Your task to perform on an android device: set the stopwatch Image 0: 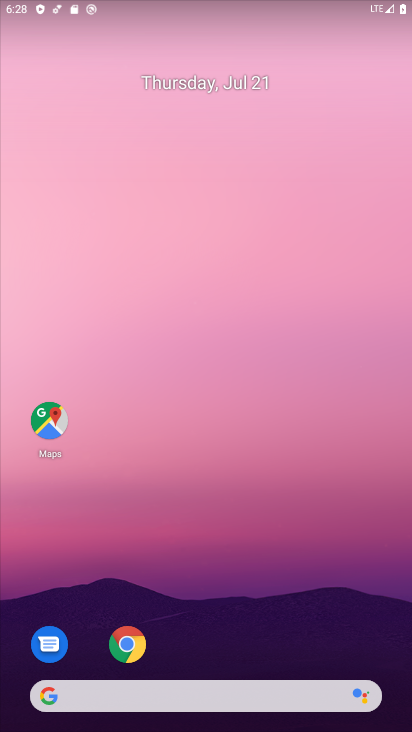
Step 0: drag from (175, 717) to (231, 95)
Your task to perform on an android device: set the stopwatch Image 1: 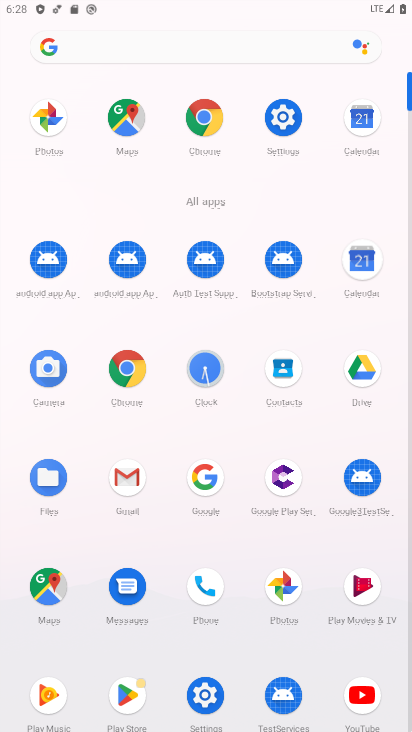
Step 1: click (205, 368)
Your task to perform on an android device: set the stopwatch Image 2: 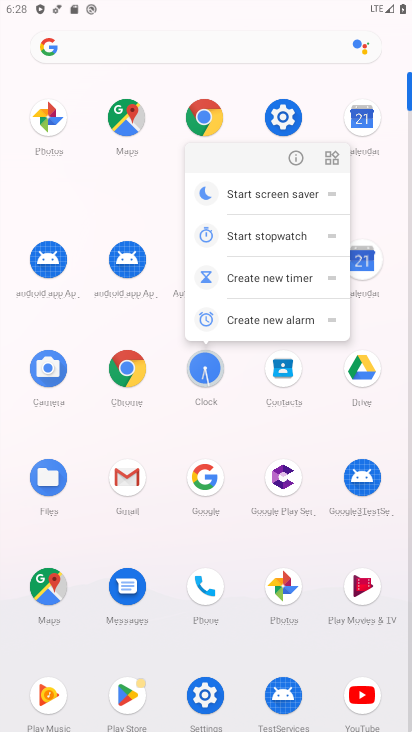
Step 2: click (216, 380)
Your task to perform on an android device: set the stopwatch Image 3: 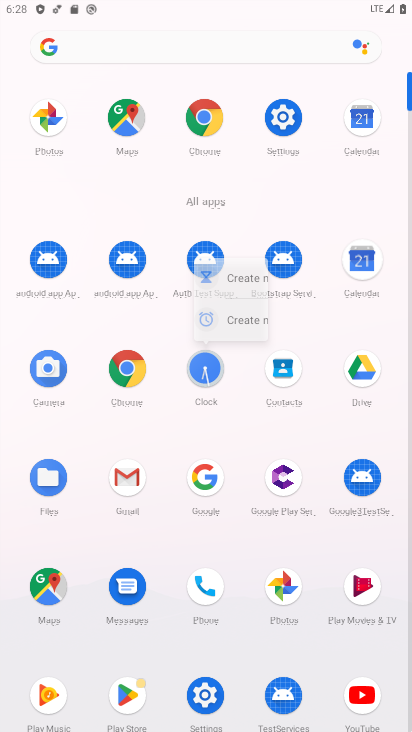
Step 3: click (216, 380)
Your task to perform on an android device: set the stopwatch Image 4: 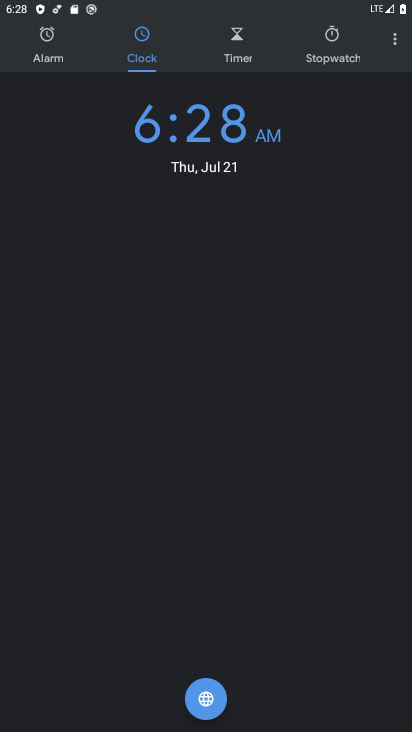
Step 4: click (323, 45)
Your task to perform on an android device: set the stopwatch Image 5: 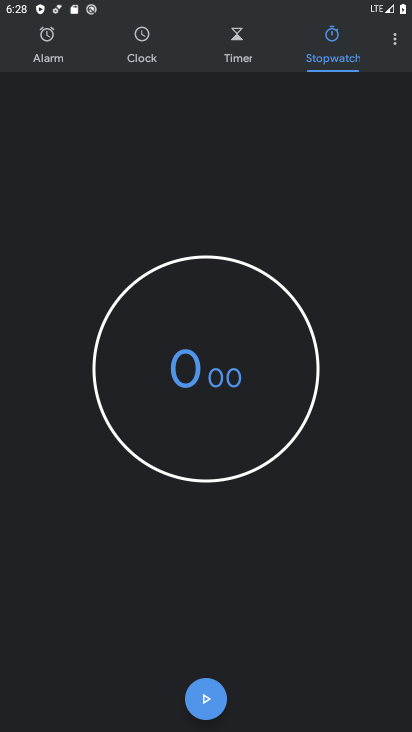
Step 5: task complete